Your task to perform on an android device: Go to location settings Image 0: 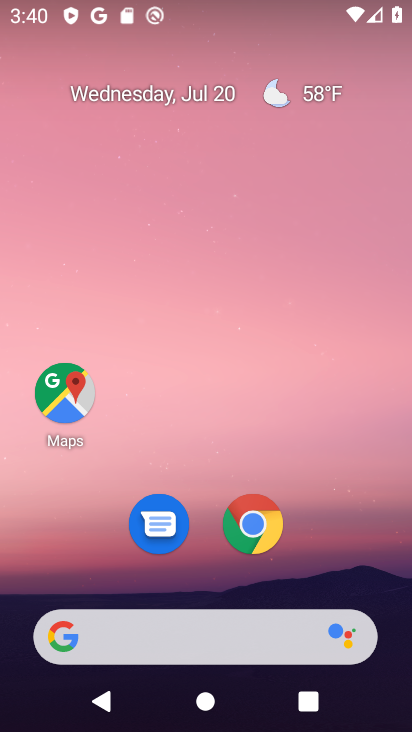
Step 0: drag from (348, 528) to (349, 8)
Your task to perform on an android device: Go to location settings Image 1: 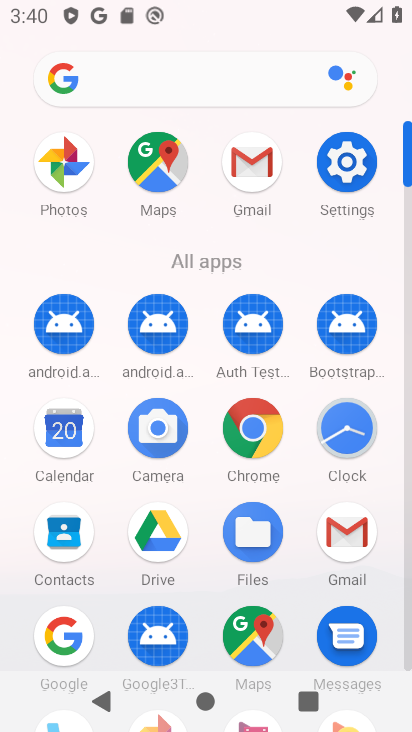
Step 1: click (346, 174)
Your task to perform on an android device: Go to location settings Image 2: 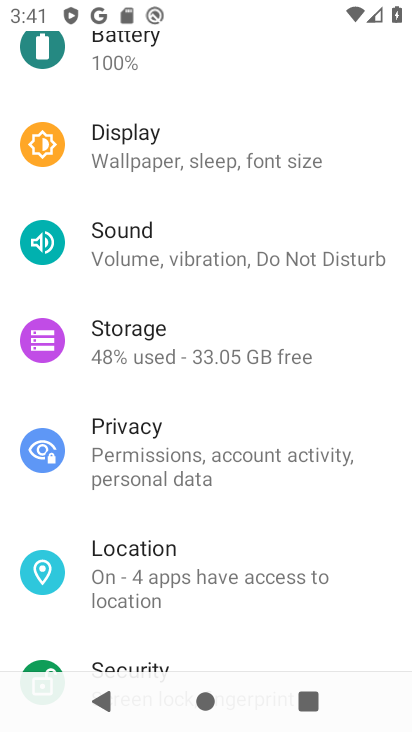
Step 2: click (178, 574)
Your task to perform on an android device: Go to location settings Image 3: 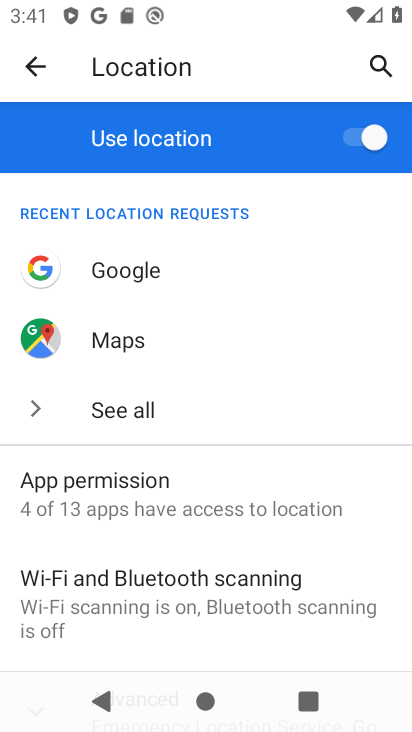
Step 3: task complete